Your task to perform on an android device: Open network settings Image 0: 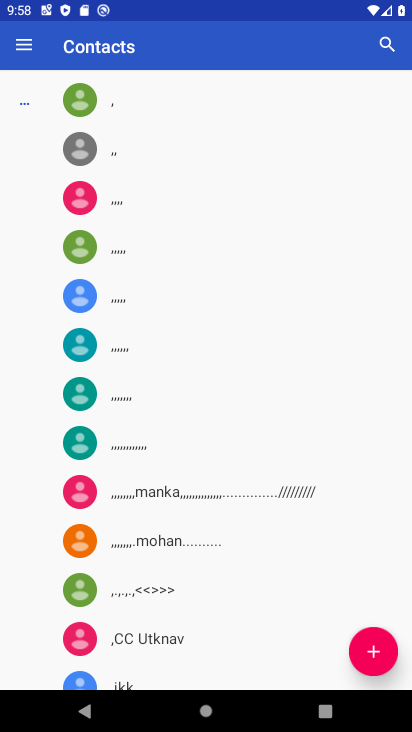
Step 0: press home button
Your task to perform on an android device: Open network settings Image 1: 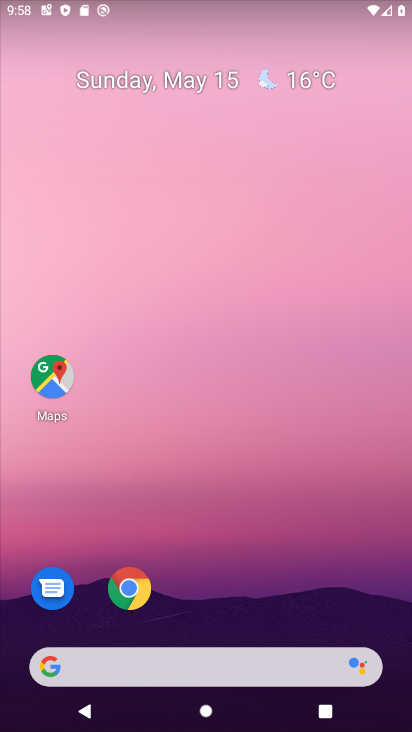
Step 1: drag from (195, 567) to (267, 15)
Your task to perform on an android device: Open network settings Image 2: 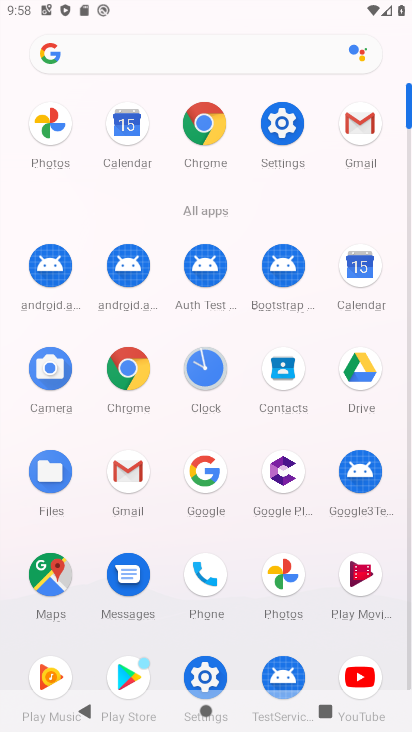
Step 2: click (278, 125)
Your task to perform on an android device: Open network settings Image 3: 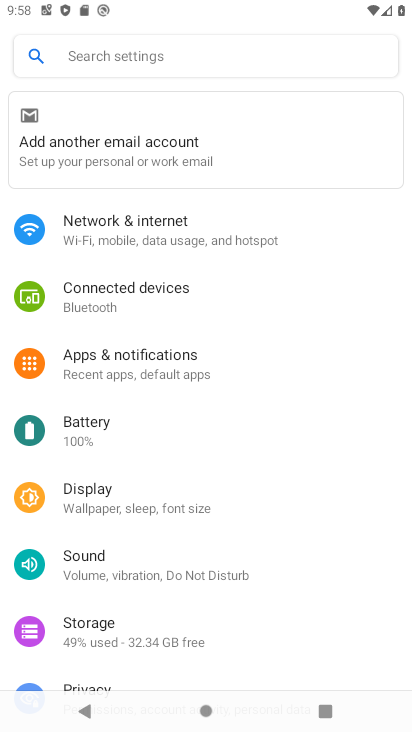
Step 3: click (172, 230)
Your task to perform on an android device: Open network settings Image 4: 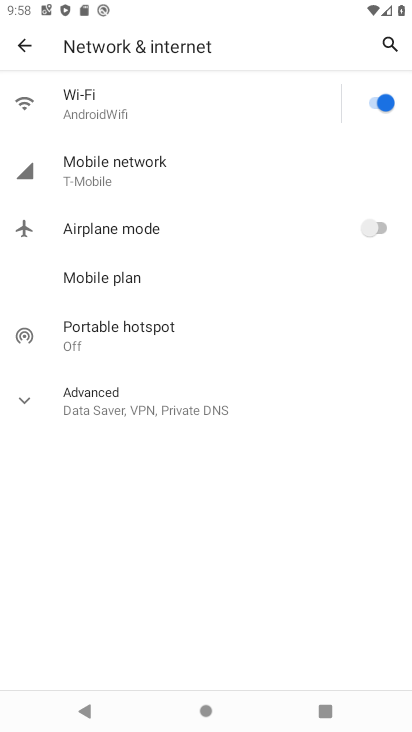
Step 4: click (177, 170)
Your task to perform on an android device: Open network settings Image 5: 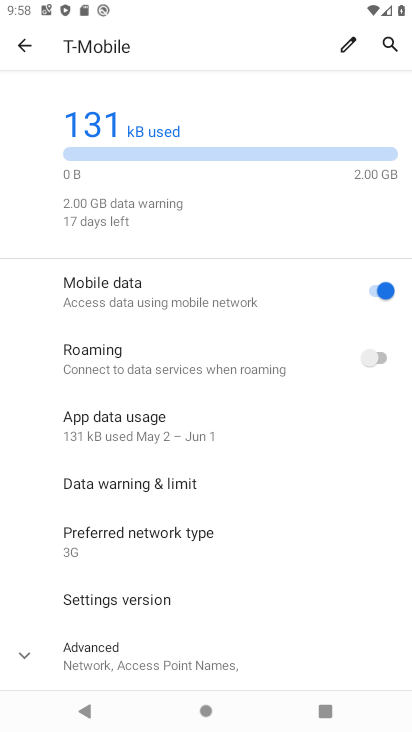
Step 5: task complete